Your task to perform on an android device: Add "razer blade" to the cart on walmart, then select checkout. Image 0: 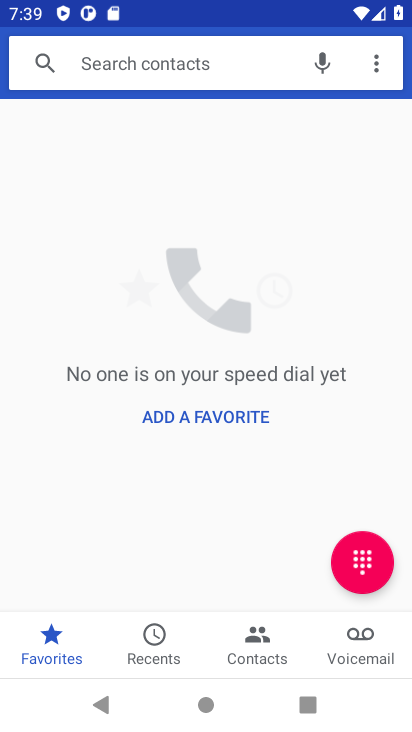
Step 0: press home button
Your task to perform on an android device: Add "razer blade" to the cart on walmart, then select checkout. Image 1: 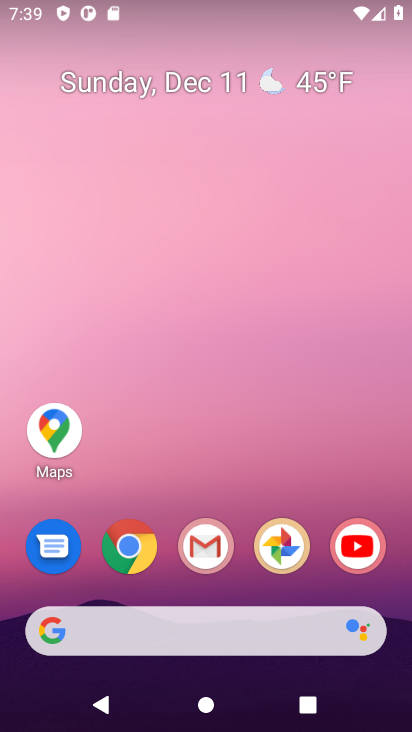
Step 1: click (122, 551)
Your task to perform on an android device: Add "razer blade" to the cart on walmart, then select checkout. Image 2: 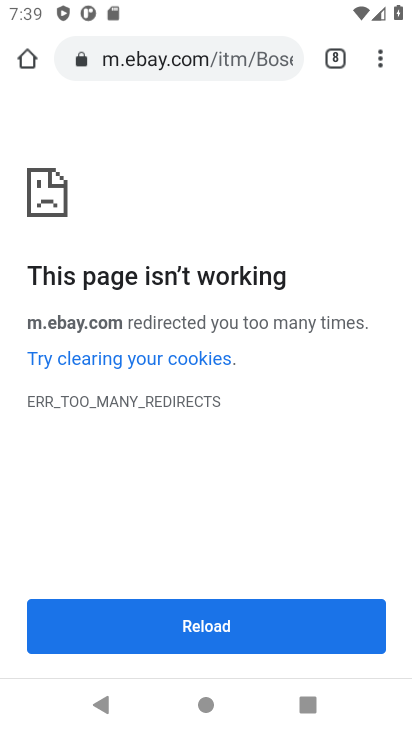
Step 2: click (162, 66)
Your task to perform on an android device: Add "razer blade" to the cart on walmart, then select checkout. Image 3: 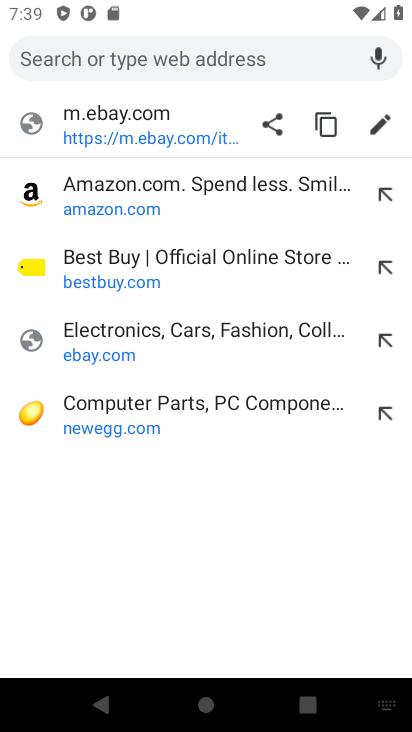
Step 3: click (162, 66)
Your task to perform on an android device: Add "razer blade" to the cart on walmart, then select checkout. Image 4: 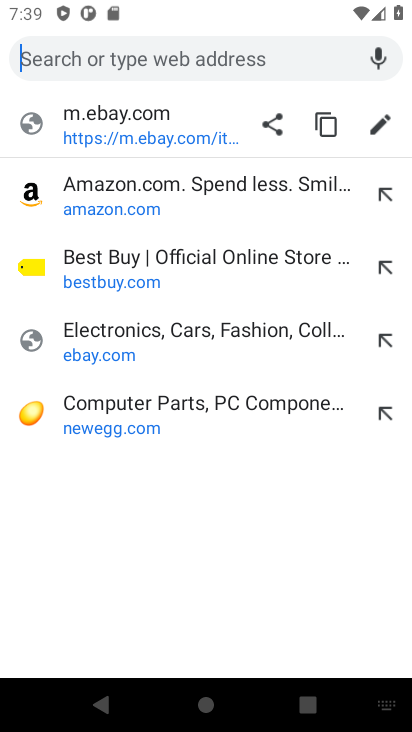
Step 4: type "walmart.com"
Your task to perform on an android device: Add "razer blade" to the cart on walmart, then select checkout. Image 5: 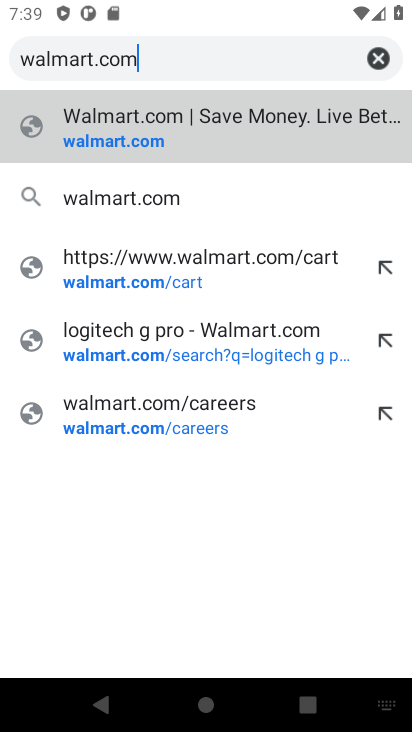
Step 5: click (109, 146)
Your task to perform on an android device: Add "razer blade" to the cart on walmart, then select checkout. Image 6: 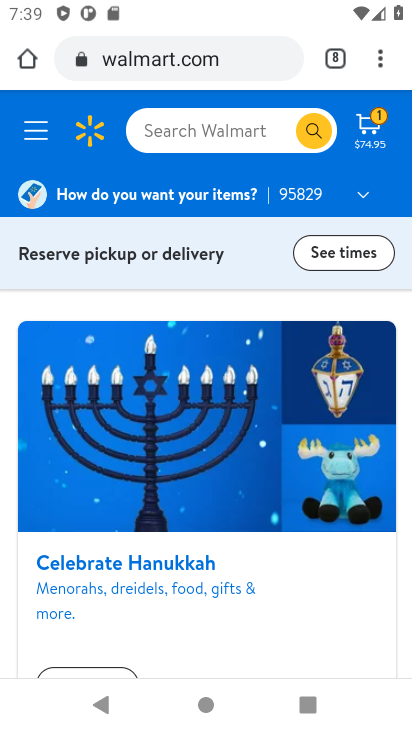
Step 6: click (170, 136)
Your task to perform on an android device: Add "razer blade" to the cart on walmart, then select checkout. Image 7: 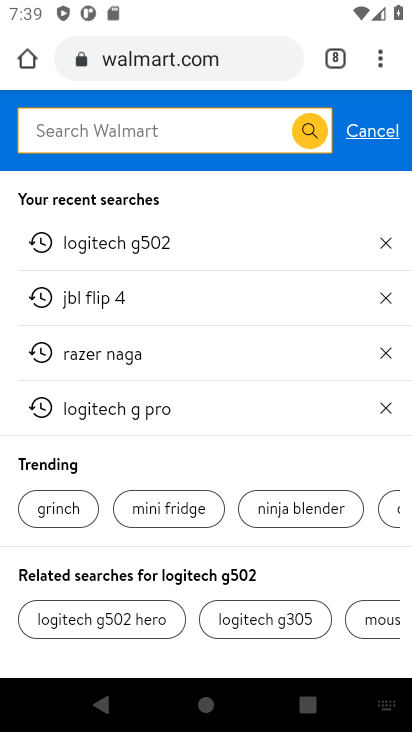
Step 7: type "razer blade"
Your task to perform on an android device: Add "razer blade" to the cart on walmart, then select checkout. Image 8: 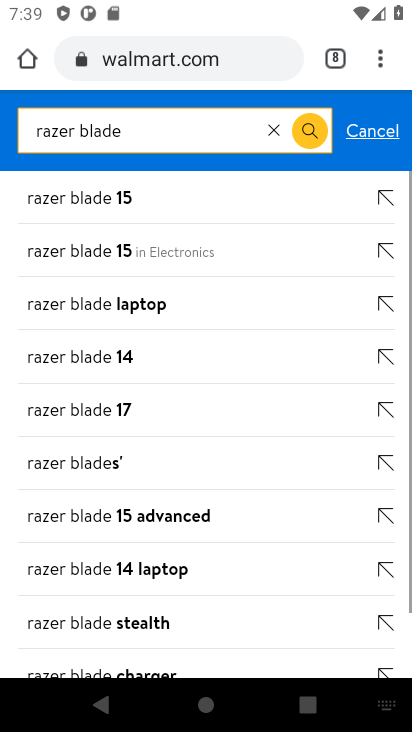
Step 8: click (312, 129)
Your task to perform on an android device: Add "razer blade" to the cart on walmart, then select checkout. Image 9: 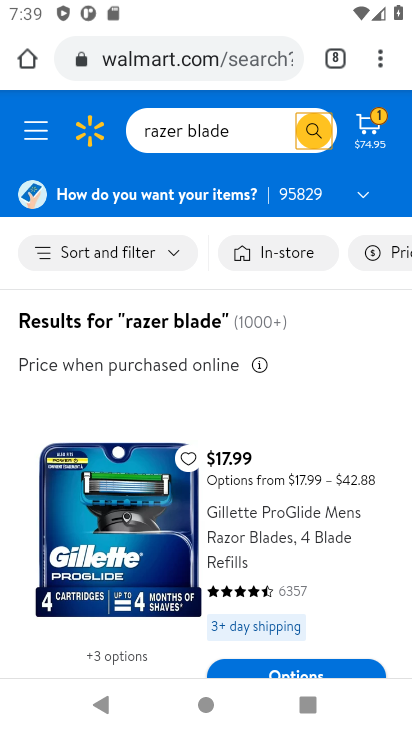
Step 9: task complete